Your task to perform on an android device: Open Android settings Image 0: 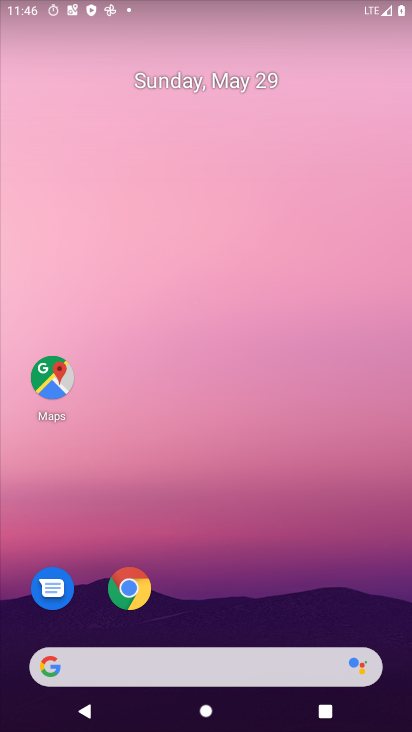
Step 0: drag from (241, 593) to (248, 191)
Your task to perform on an android device: Open Android settings Image 1: 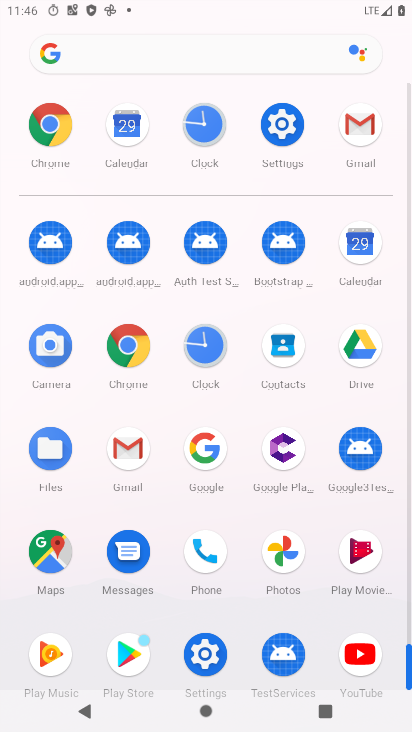
Step 1: click (219, 656)
Your task to perform on an android device: Open Android settings Image 2: 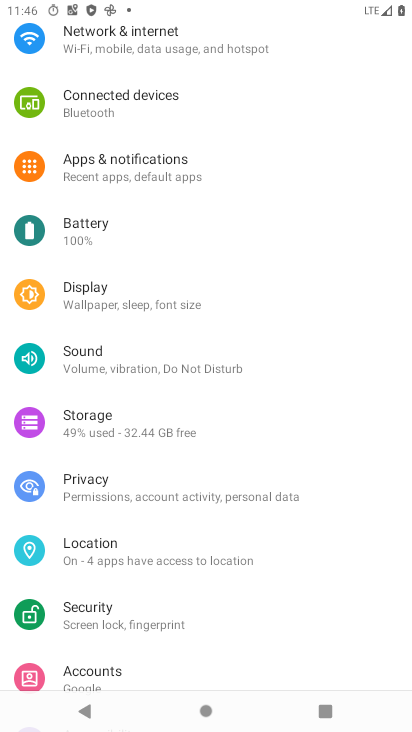
Step 2: task complete